Your task to perform on an android device: Is it going to rain today? Image 0: 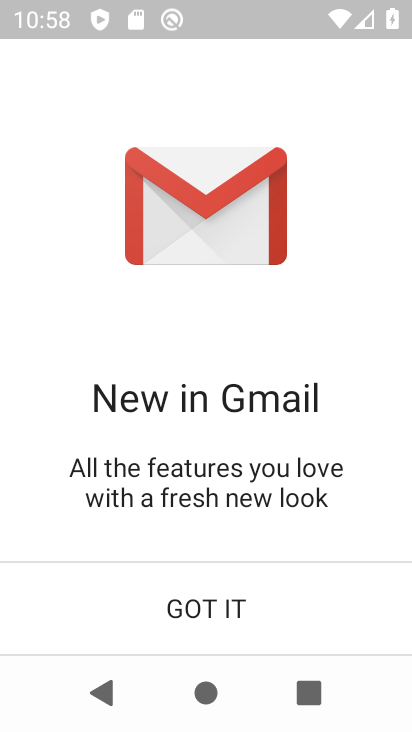
Step 0: click (219, 631)
Your task to perform on an android device: Is it going to rain today? Image 1: 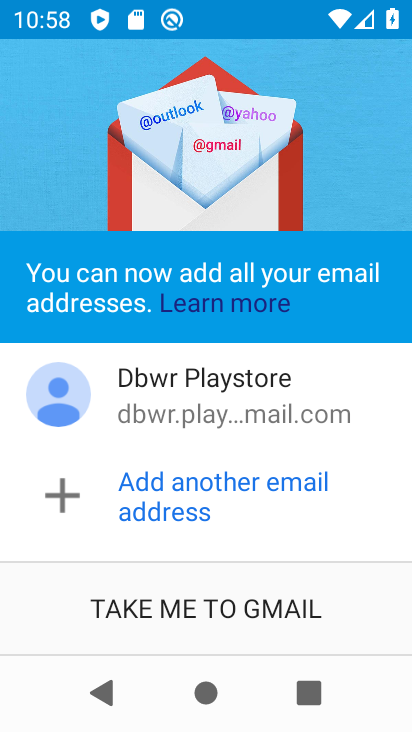
Step 1: press home button
Your task to perform on an android device: Is it going to rain today? Image 2: 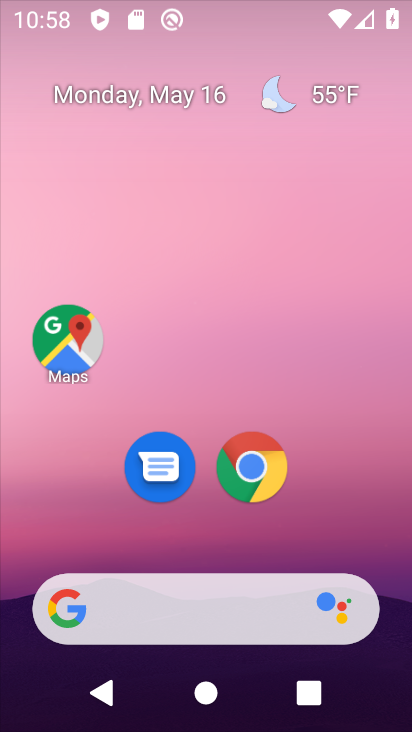
Step 2: click (275, 76)
Your task to perform on an android device: Is it going to rain today? Image 3: 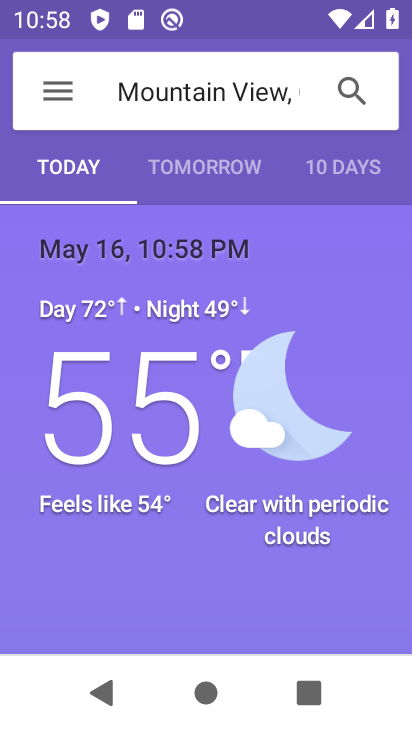
Step 3: task complete